Your task to perform on an android device: turn on improve location accuracy Image 0: 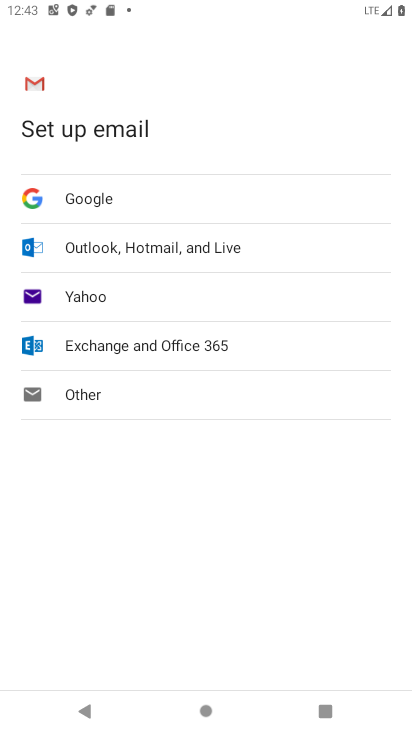
Step 0: press home button
Your task to perform on an android device: turn on improve location accuracy Image 1: 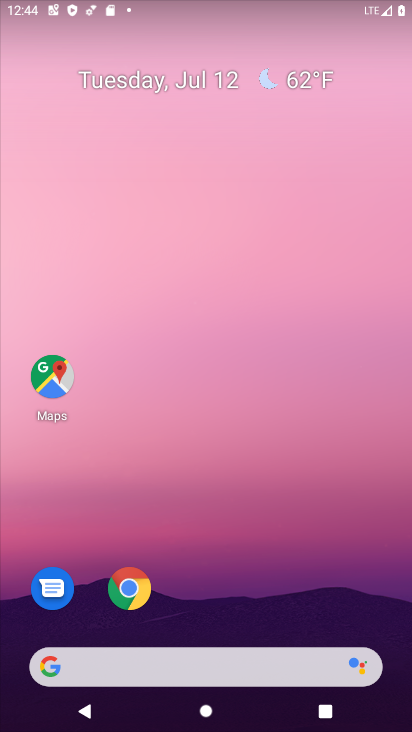
Step 1: drag from (171, 709) to (283, 8)
Your task to perform on an android device: turn on improve location accuracy Image 2: 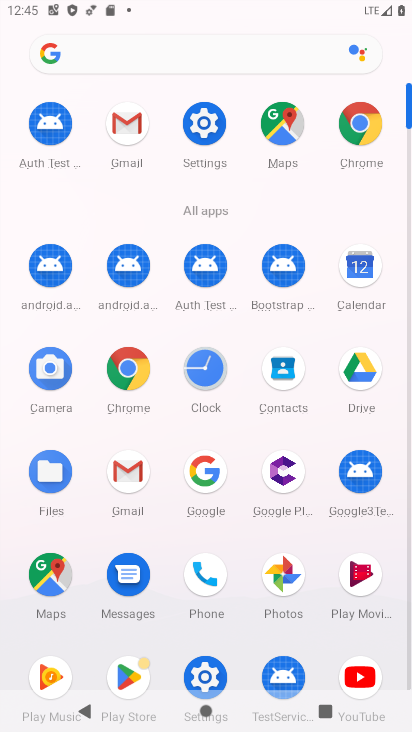
Step 2: click (215, 126)
Your task to perform on an android device: turn on improve location accuracy Image 3: 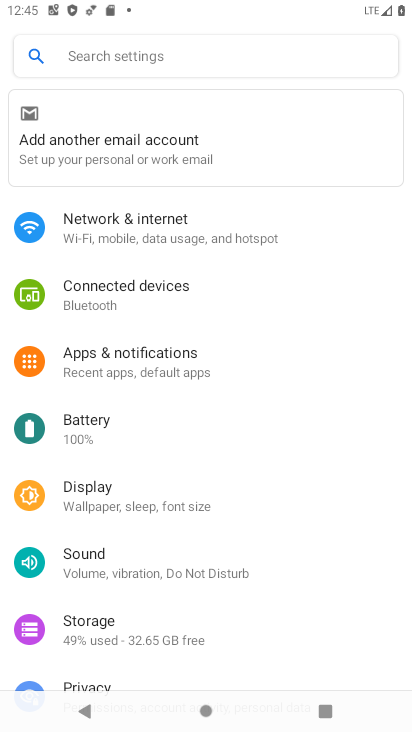
Step 3: drag from (272, 535) to (249, 280)
Your task to perform on an android device: turn on improve location accuracy Image 4: 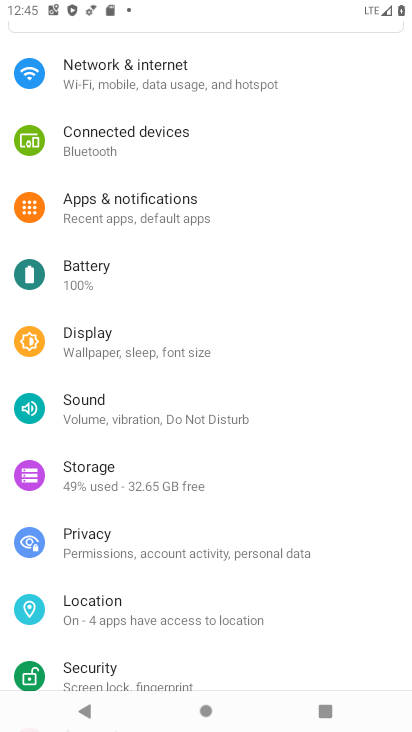
Step 4: click (123, 614)
Your task to perform on an android device: turn on improve location accuracy Image 5: 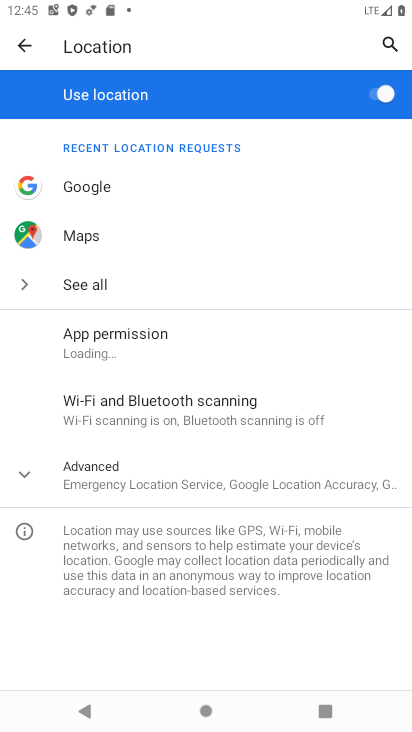
Step 5: click (187, 490)
Your task to perform on an android device: turn on improve location accuracy Image 6: 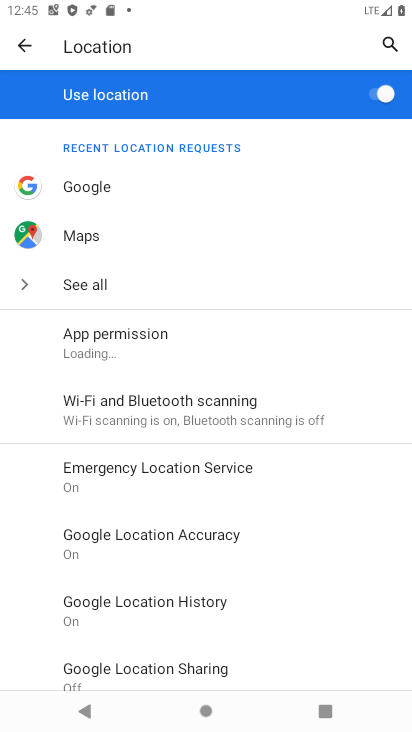
Step 6: click (204, 528)
Your task to perform on an android device: turn on improve location accuracy Image 7: 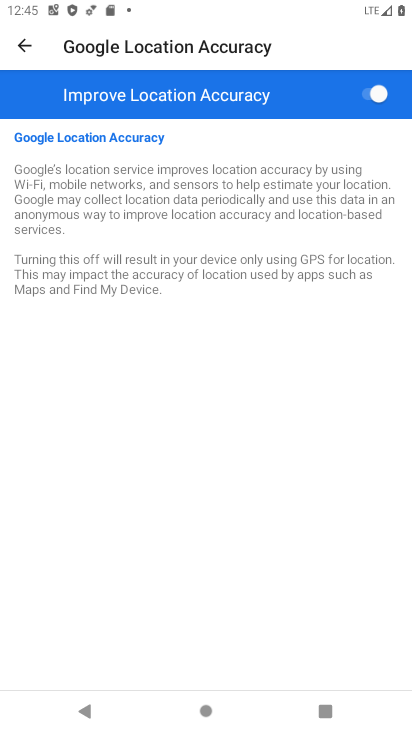
Step 7: task complete